Your task to perform on an android device: Go to network settings Image 0: 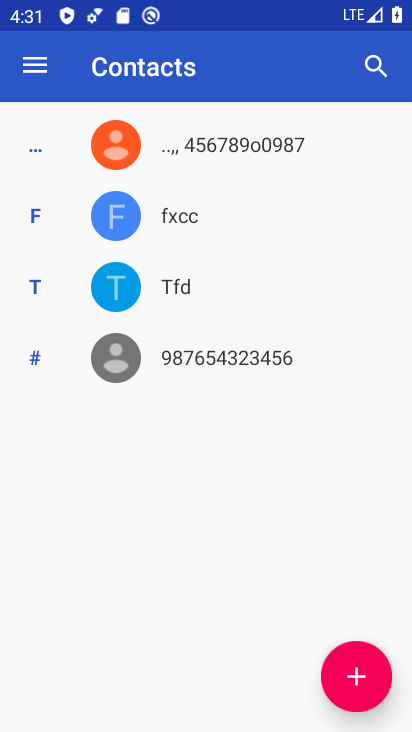
Step 0: press home button
Your task to perform on an android device: Go to network settings Image 1: 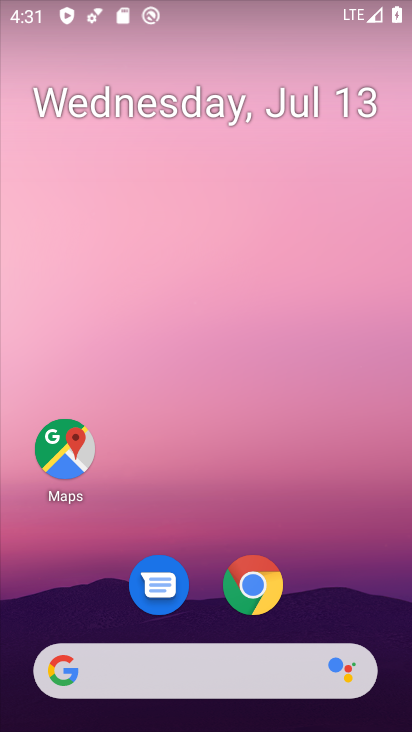
Step 1: drag from (351, 616) to (341, 145)
Your task to perform on an android device: Go to network settings Image 2: 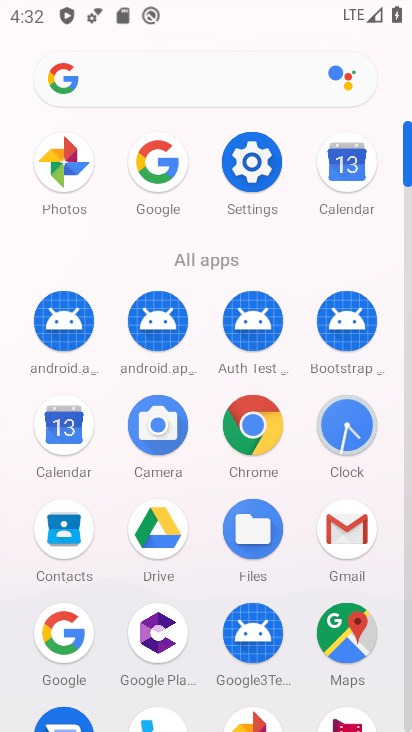
Step 2: click (260, 158)
Your task to perform on an android device: Go to network settings Image 3: 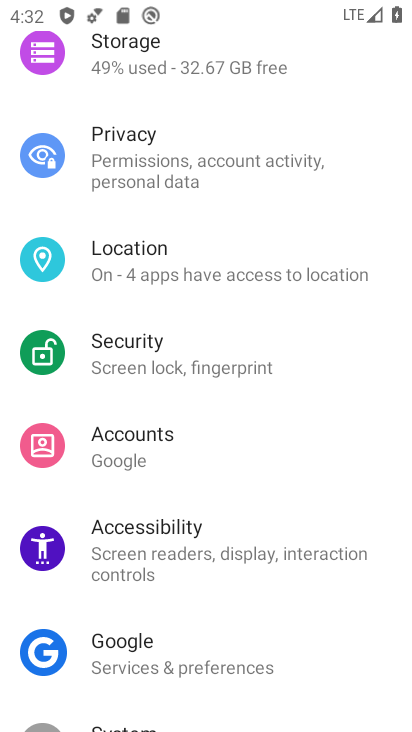
Step 3: drag from (205, 501) to (236, 167)
Your task to perform on an android device: Go to network settings Image 4: 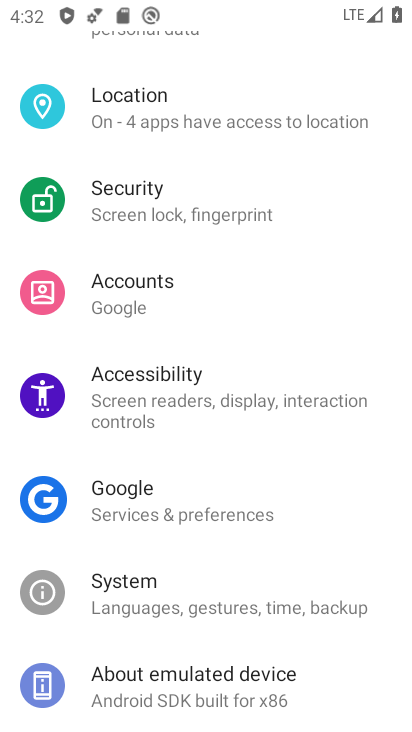
Step 4: drag from (236, 170) to (257, 625)
Your task to perform on an android device: Go to network settings Image 5: 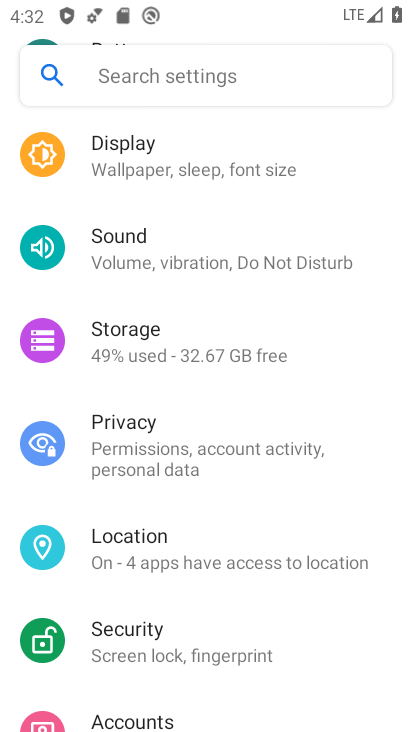
Step 5: drag from (263, 218) to (263, 634)
Your task to perform on an android device: Go to network settings Image 6: 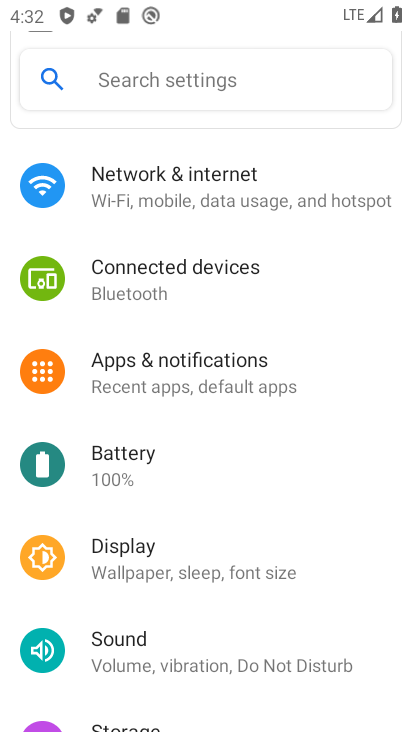
Step 6: click (203, 194)
Your task to perform on an android device: Go to network settings Image 7: 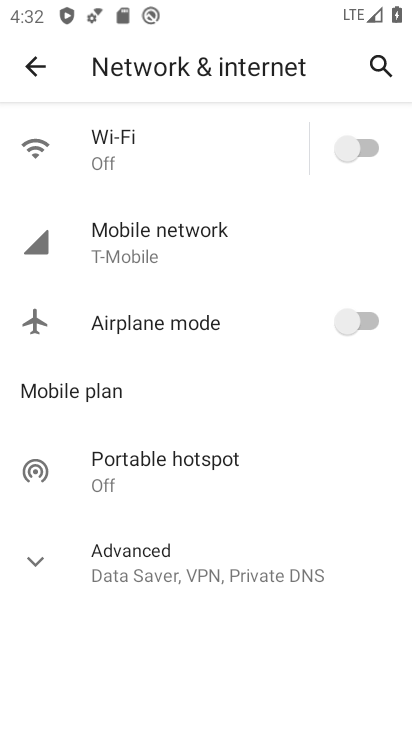
Step 7: task complete